Your task to perform on an android device: Open Yahoo.com Image 0: 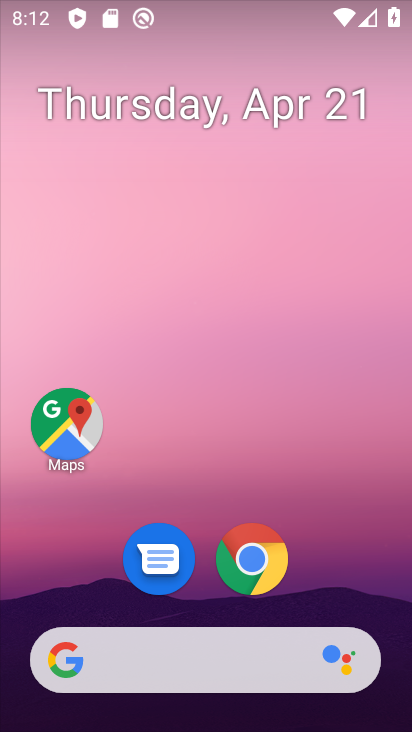
Step 0: click (262, 572)
Your task to perform on an android device: Open Yahoo.com Image 1: 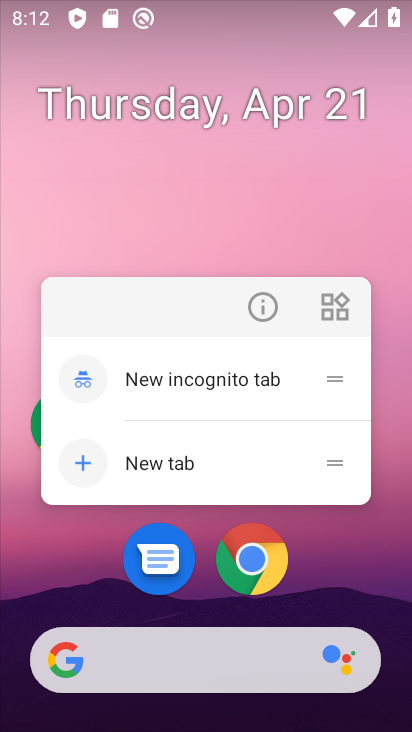
Step 1: drag from (324, 622) to (409, 140)
Your task to perform on an android device: Open Yahoo.com Image 2: 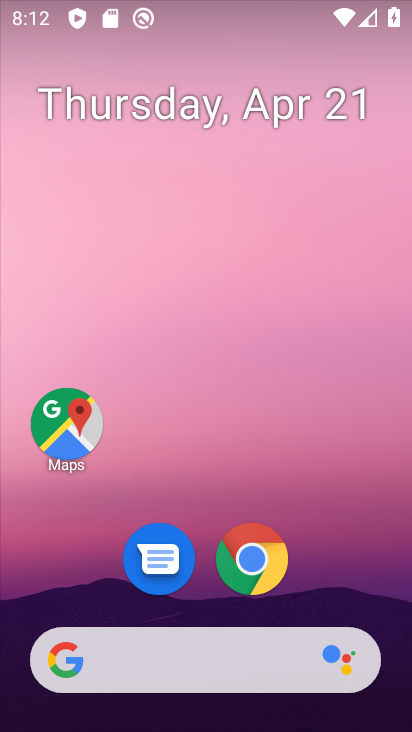
Step 2: drag from (292, 614) to (388, 39)
Your task to perform on an android device: Open Yahoo.com Image 3: 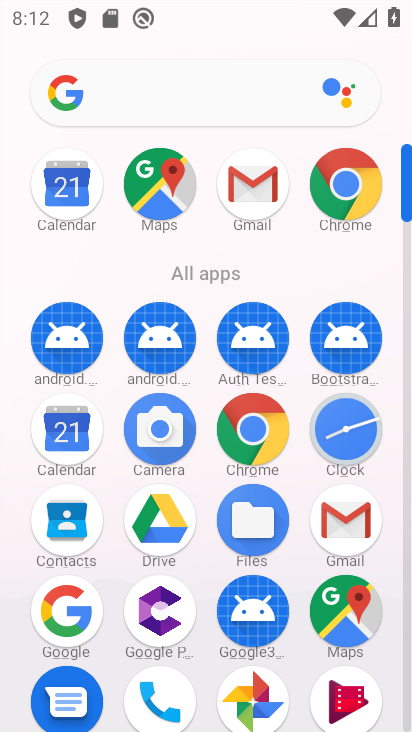
Step 3: click (354, 181)
Your task to perform on an android device: Open Yahoo.com Image 4: 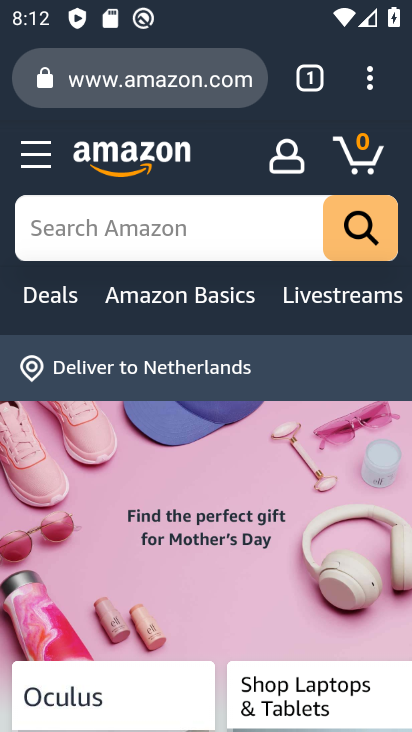
Step 4: press back button
Your task to perform on an android device: Open Yahoo.com Image 5: 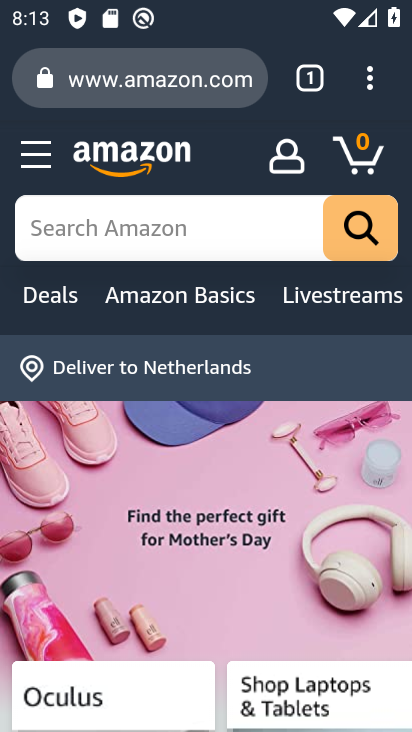
Step 5: press back button
Your task to perform on an android device: Open Yahoo.com Image 6: 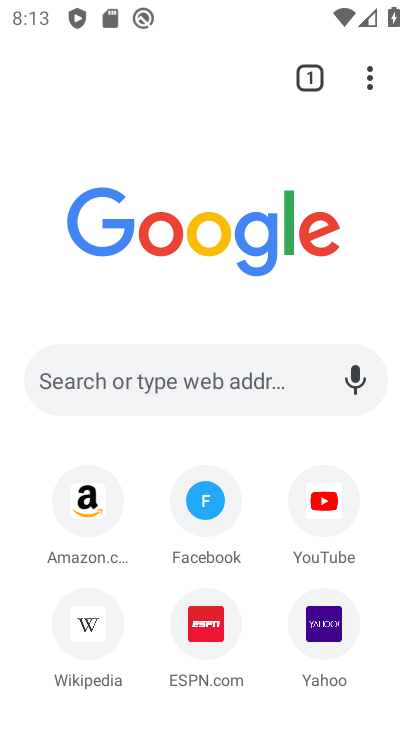
Step 6: click (341, 635)
Your task to perform on an android device: Open Yahoo.com Image 7: 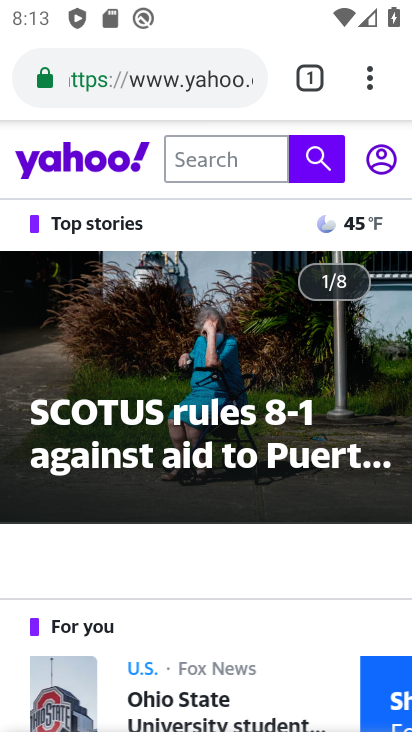
Step 7: task complete